Your task to perform on an android device: change text size in settings app Image 0: 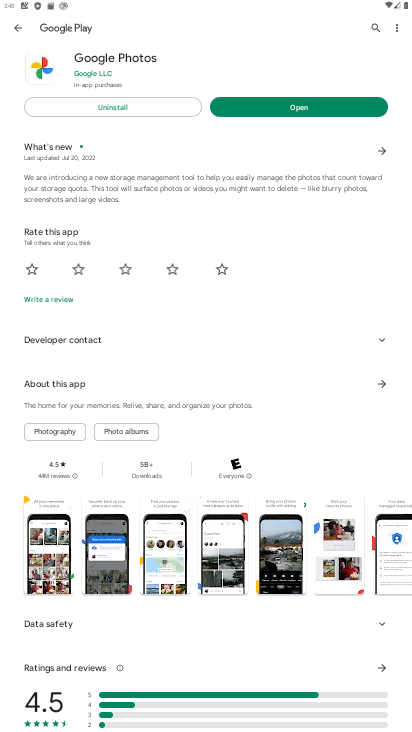
Step 0: press home button
Your task to perform on an android device: change text size in settings app Image 1: 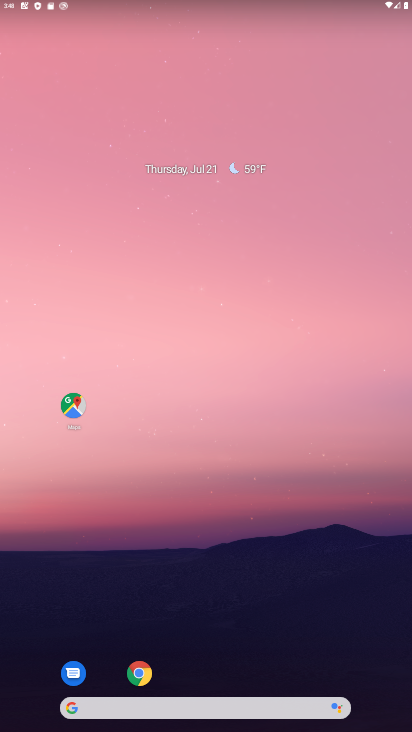
Step 1: drag from (378, 679) to (343, 166)
Your task to perform on an android device: change text size in settings app Image 2: 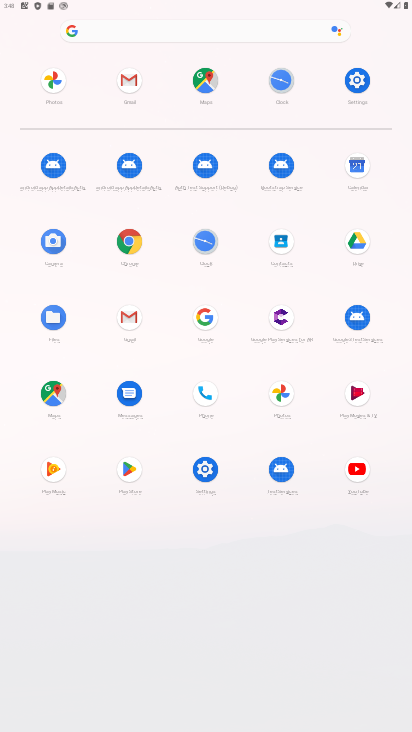
Step 2: click (205, 467)
Your task to perform on an android device: change text size in settings app Image 3: 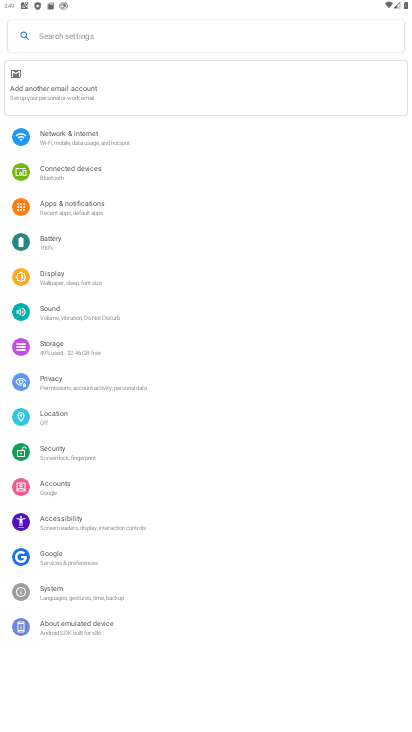
Step 3: click (52, 275)
Your task to perform on an android device: change text size in settings app Image 4: 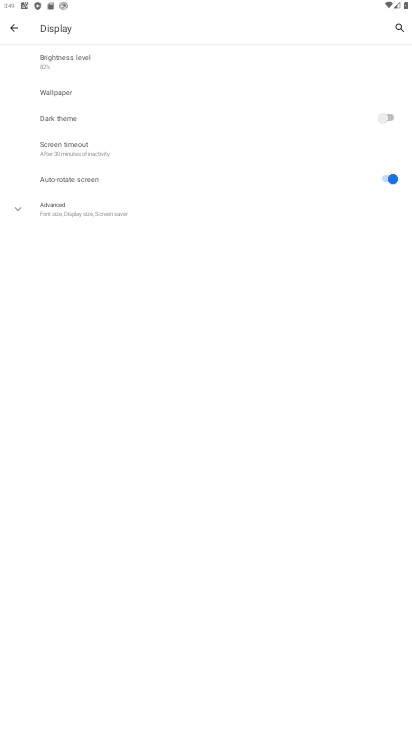
Step 4: click (16, 206)
Your task to perform on an android device: change text size in settings app Image 5: 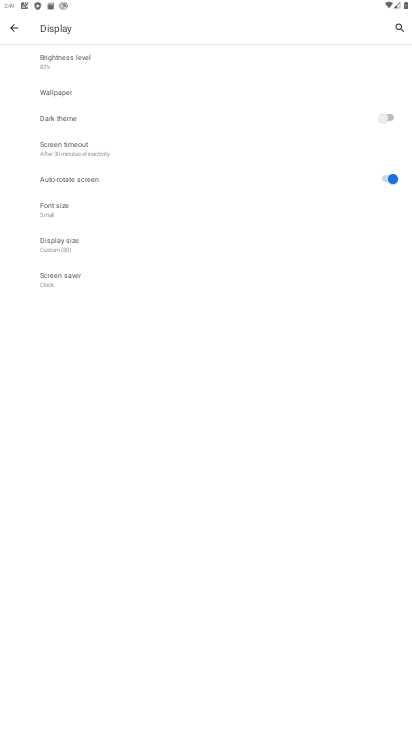
Step 5: click (54, 209)
Your task to perform on an android device: change text size in settings app Image 6: 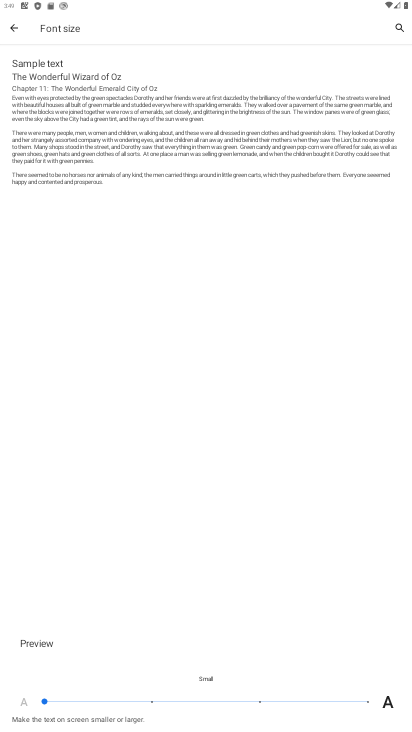
Step 6: click (366, 702)
Your task to perform on an android device: change text size in settings app Image 7: 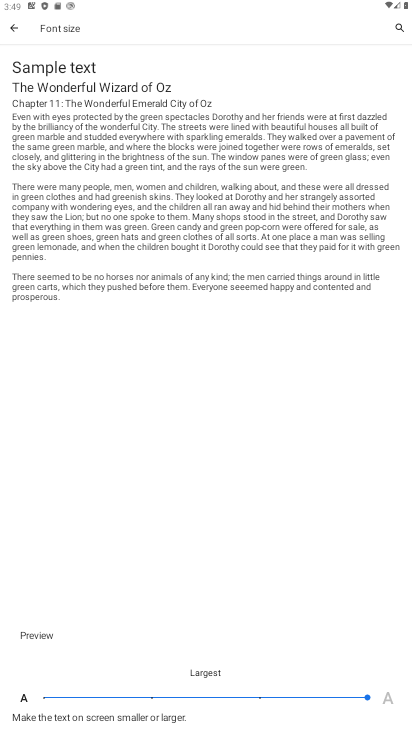
Step 7: task complete